Your task to perform on an android device: turn on location history Image 0: 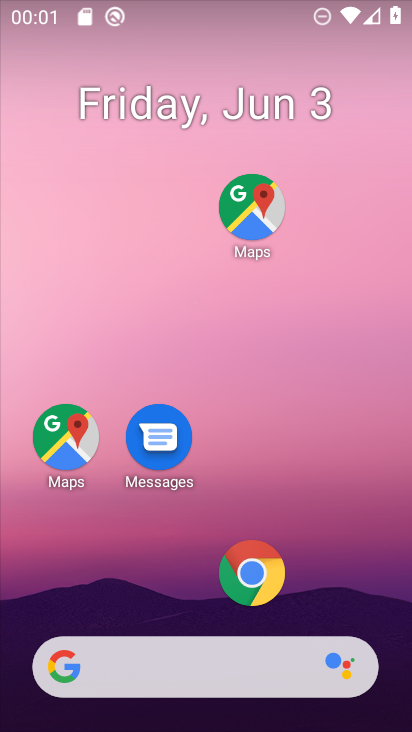
Step 0: drag from (373, 482) to (305, 44)
Your task to perform on an android device: turn on location history Image 1: 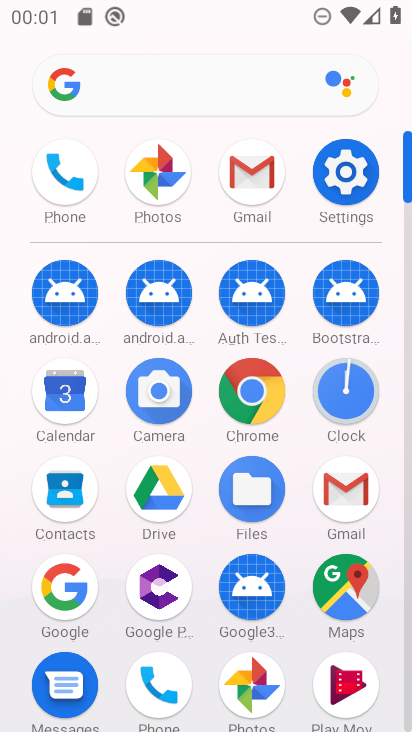
Step 1: click (346, 188)
Your task to perform on an android device: turn on location history Image 2: 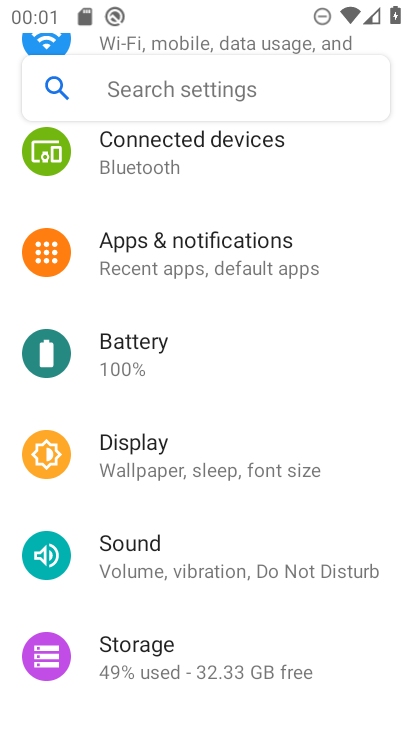
Step 2: drag from (288, 615) to (301, 255)
Your task to perform on an android device: turn on location history Image 3: 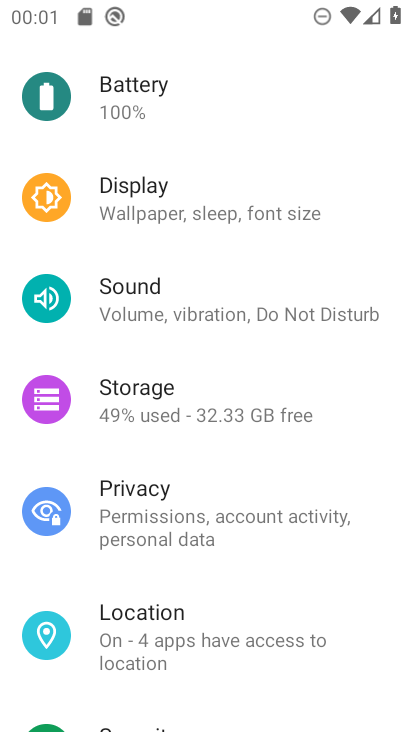
Step 3: click (180, 647)
Your task to perform on an android device: turn on location history Image 4: 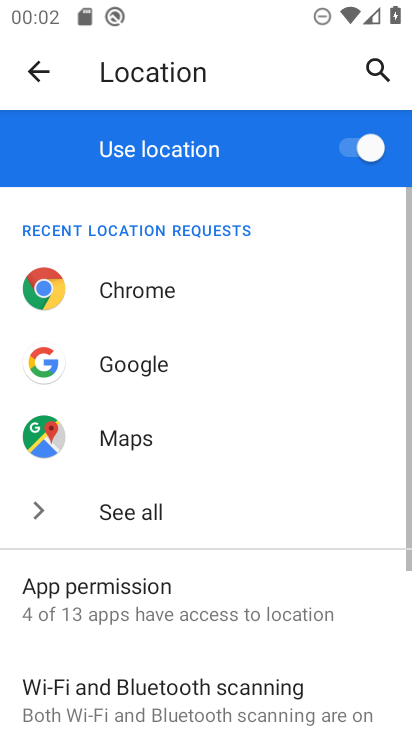
Step 4: drag from (264, 413) to (267, 140)
Your task to perform on an android device: turn on location history Image 5: 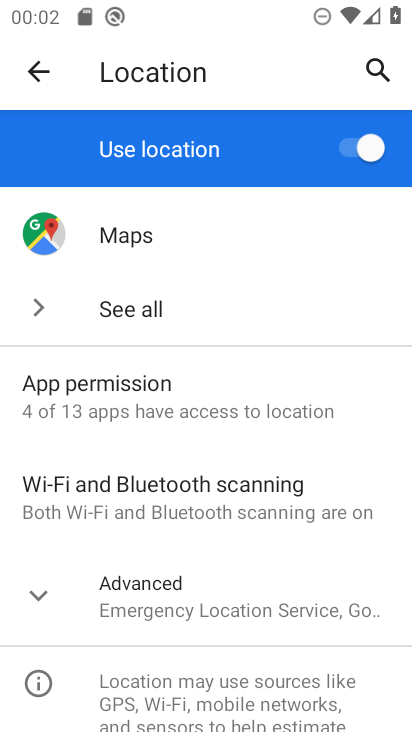
Step 5: click (240, 613)
Your task to perform on an android device: turn on location history Image 6: 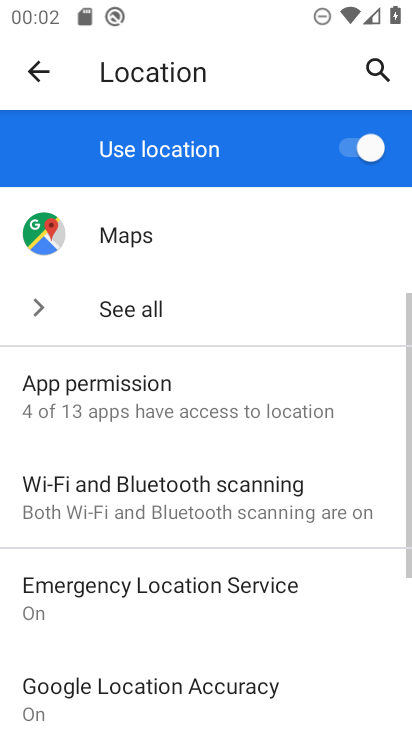
Step 6: drag from (318, 635) to (299, 192)
Your task to perform on an android device: turn on location history Image 7: 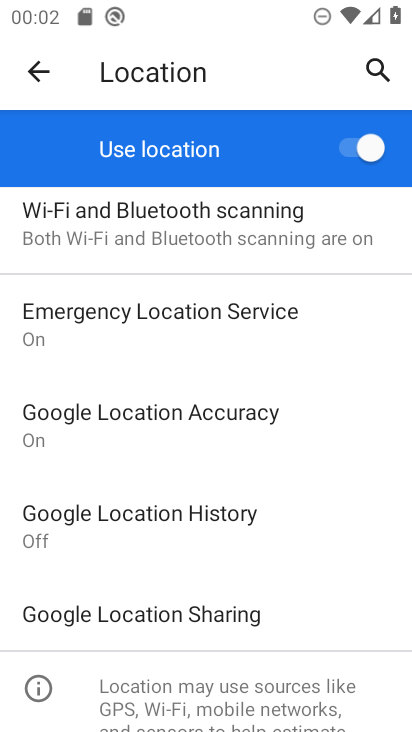
Step 7: click (234, 520)
Your task to perform on an android device: turn on location history Image 8: 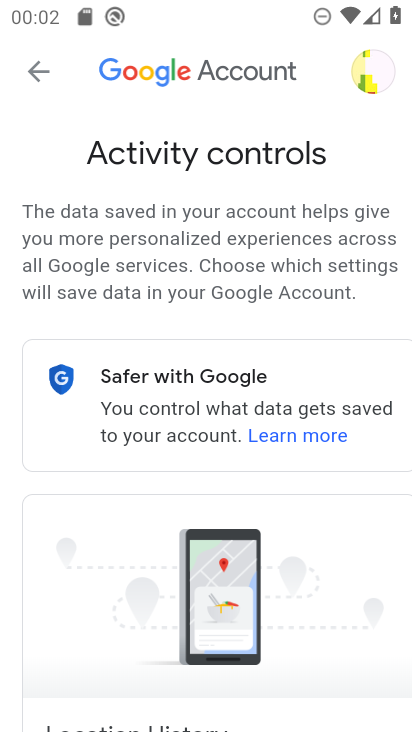
Step 8: task complete